Your task to perform on an android device: Search for Italian restaurants on Maps Image 0: 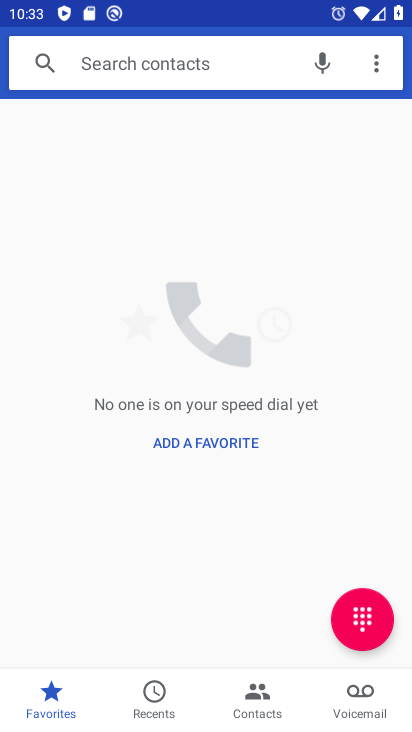
Step 0: press home button
Your task to perform on an android device: Search for Italian restaurants on Maps Image 1: 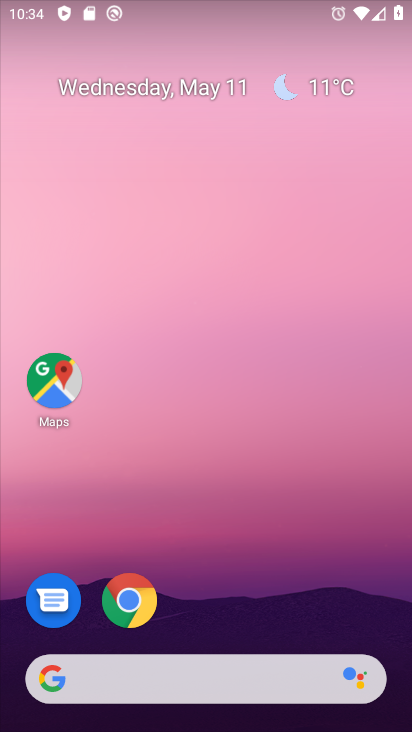
Step 1: click (42, 374)
Your task to perform on an android device: Search for Italian restaurants on Maps Image 2: 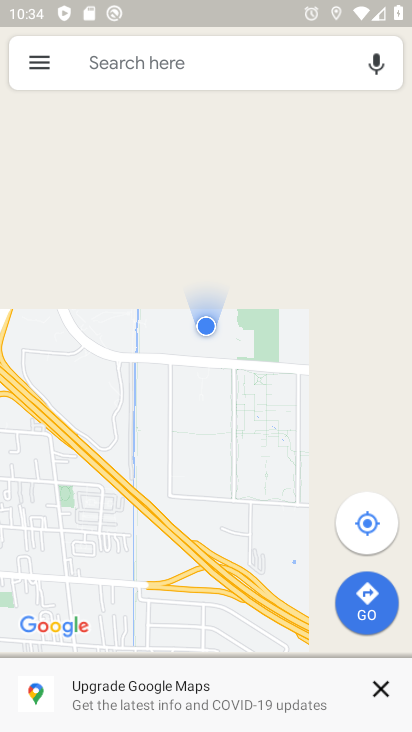
Step 2: click (179, 77)
Your task to perform on an android device: Search for Italian restaurants on Maps Image 3: 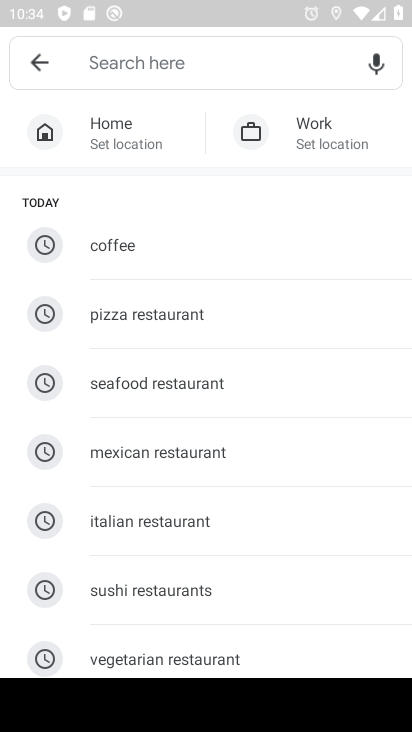
Step 3: click (120, 502)
Your task to perform on an android device: Search for Italian restaurants on Maps Image 4: 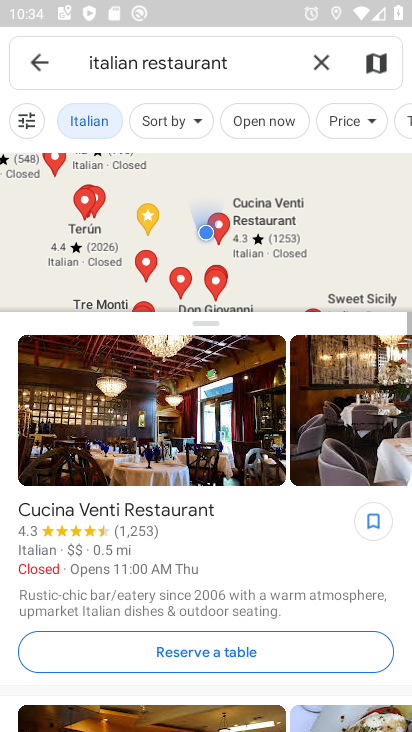
Step 4: task complete